Your task to perform on an android device: turn off location history Image 0: 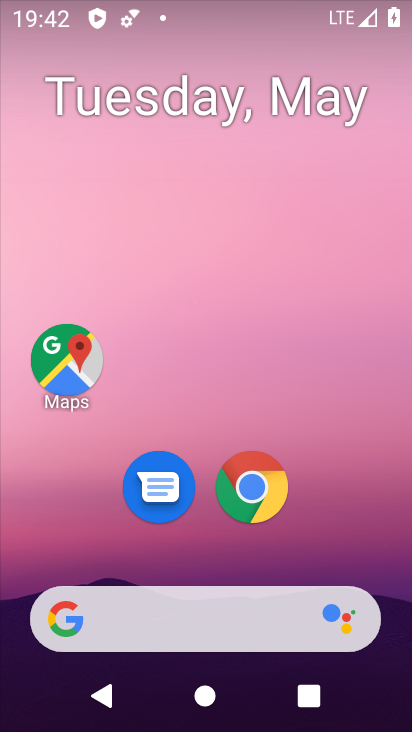
Step 0: drag from (329, 524) to (235, 23)
Your task to perform on an android device: turn off location history Image 1: 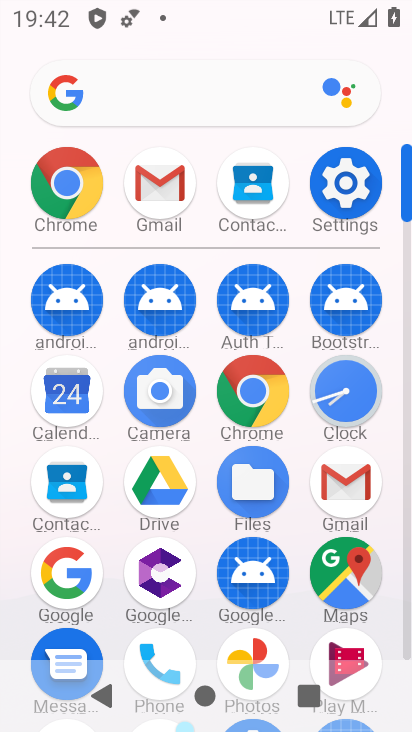
Step 1: click (339, 186)
Your task to perform on an android device: turn off location history Image 2: 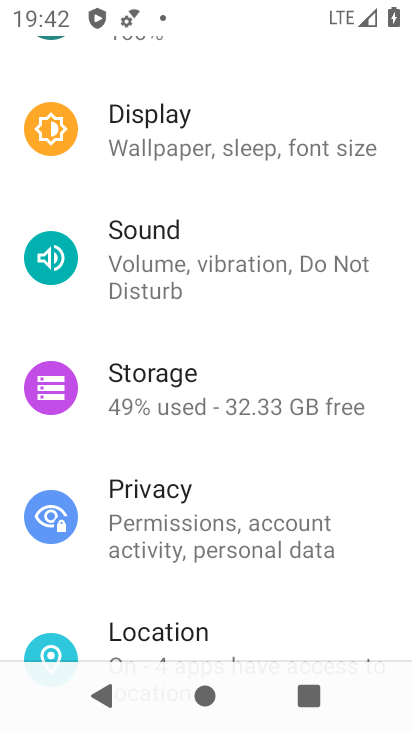
Step 2: click (158, 624)
Your task to perform on an android device: turn off location history Image 3: 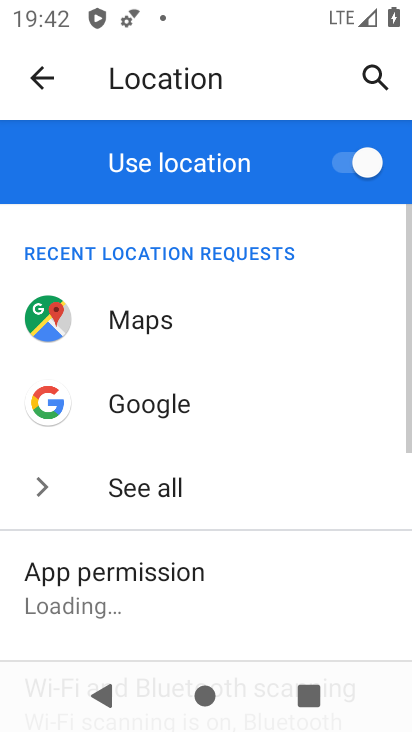
Step 3: drag from (197, 579) to (86, 147)
Your task to perform on an android device: turn off location history Image 4: 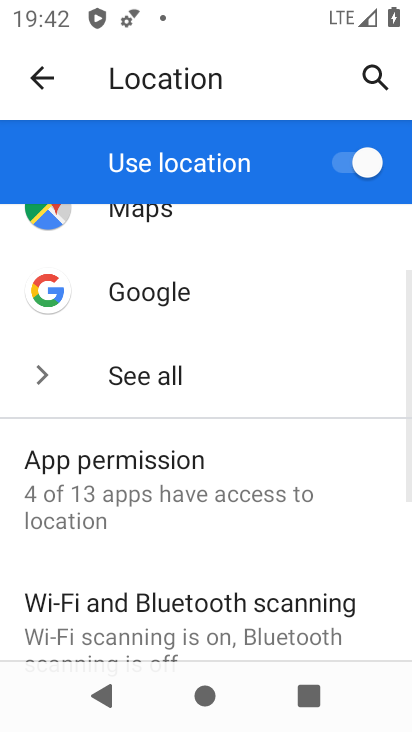
Step 4: drag from (286, 499) to (237, 213)
Your task to perform on an android device: turn off location history Image 5: 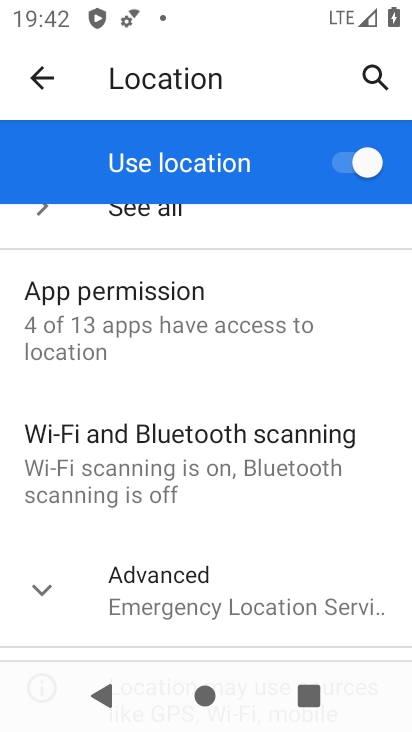
Step 5: click (38, 596)
Your task to perform on an android device: turn off location history Image 6: 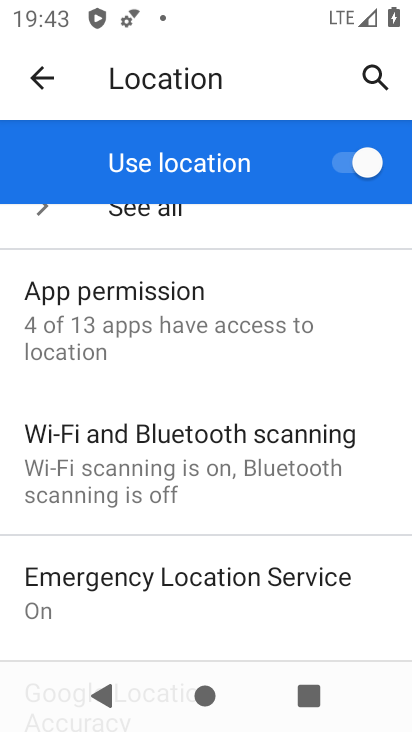
Step 6: drag from (256, 581) to (236, 350)
Your task to perform on an android device: turn off location history Image 7: 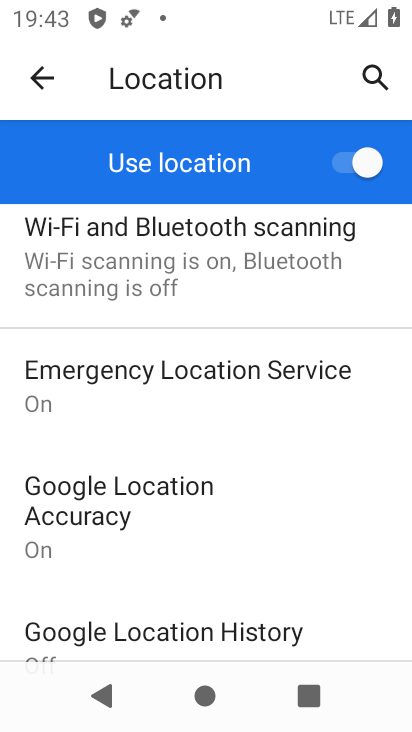
Step 7: drag from (252, 486) to (206, 223)
Your task to perform on an android device: turn off location history Image 8: 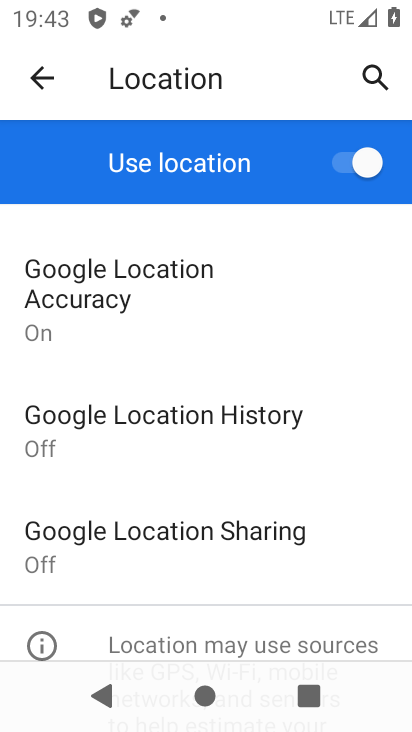
Step 8: click (127, 417)
Your task to perform on an android device: turn off location history Image 9: 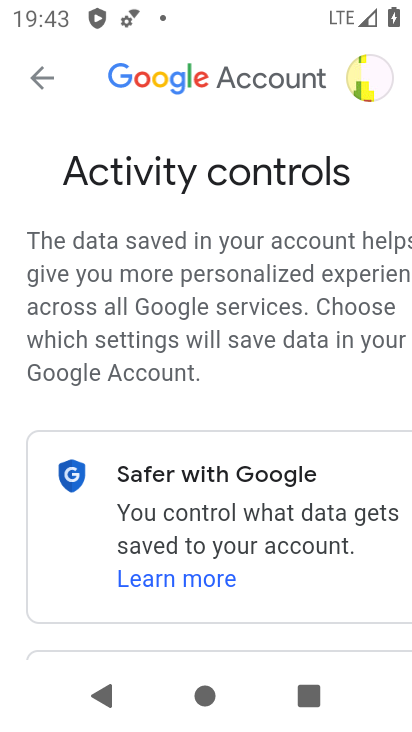
Step 9: task complete